Your task to perform on an android device: open a new tab in the chrome app Image 0: 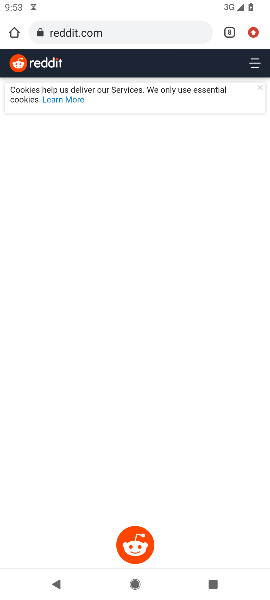
Step 0: press home button
Your task to perform on an android device: open a new tab in the chrome app Image 1: 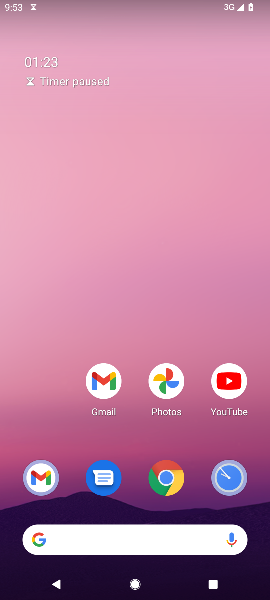
Step 1: click (165, 471)
Your task to perform on an android device: open a new tab in the chrome app Image 2: 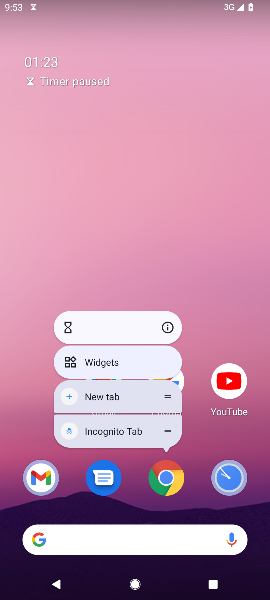
Step 2: click (160, 483)
Your task to perform on an android device: open a new tab in the chrome app Image 3: 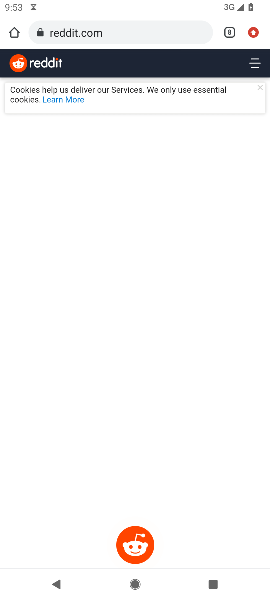
Step 3: task complete